Your task to perform on an android device: toggle data saver in the chrome app Image 0: 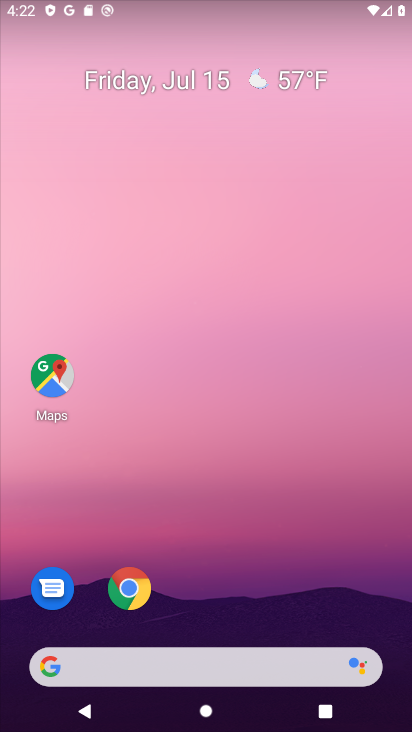
Step 0: drag from (247, 638) to (293, 128)
Your task to perform on an android device: toggle data saver in the chrome app Image 1: 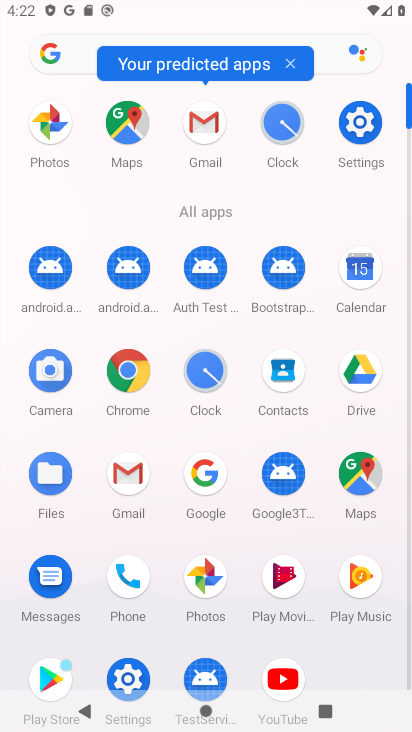
Step 1: click (125, 386)
Your task to perform on an android device: toggle data saver in the chrome app Image 2: 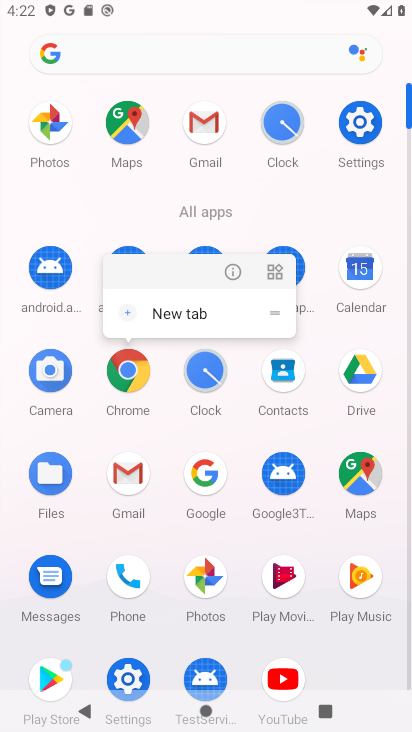
Step 2: click (134, 371)
Your task to perform on an android device: toggle data saver in the chrome app Image 3: 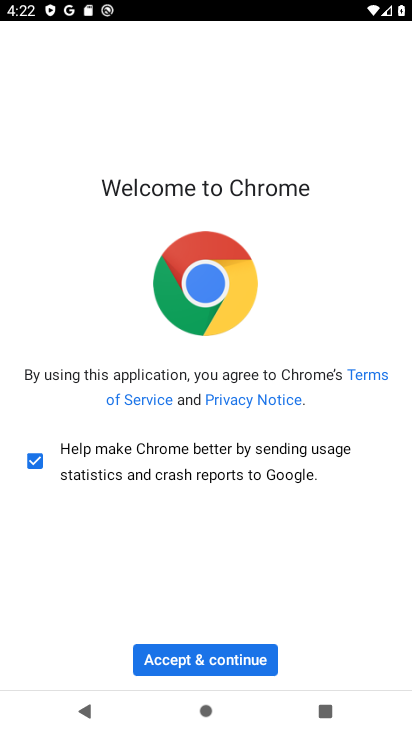
Step 3: click (204, 655)
Your task to perform on an android device: toggle data saver in the chrome app Image 4: 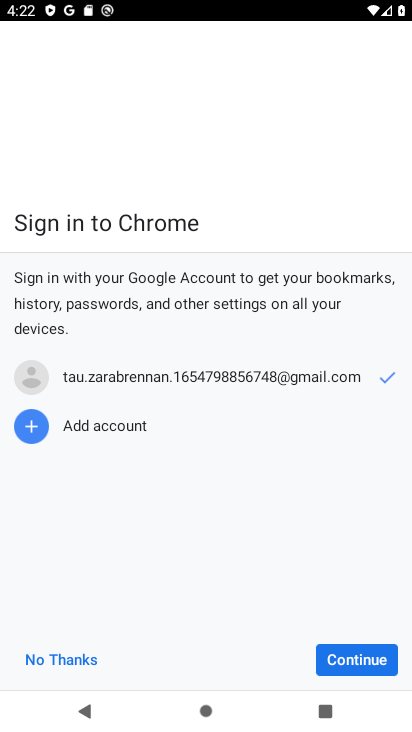
Step 4: click (341, 667)
Your task to perform on an android device: toggle data saver in the chrome app Image 5: 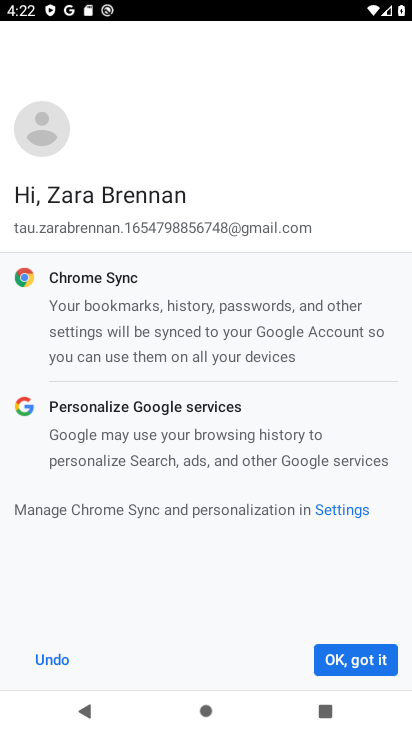
Step 5: click (359, 654)
Your task to perform on an android device: toggle data saver in the chrome app Image 6: 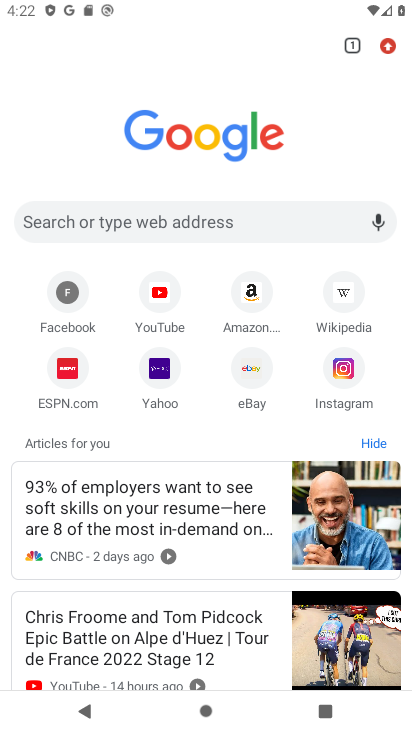
Step 6: drag from (387, 41) to (214, 440)
Your task to perform on an android device: toggle data saver in the chrome app Image 7: 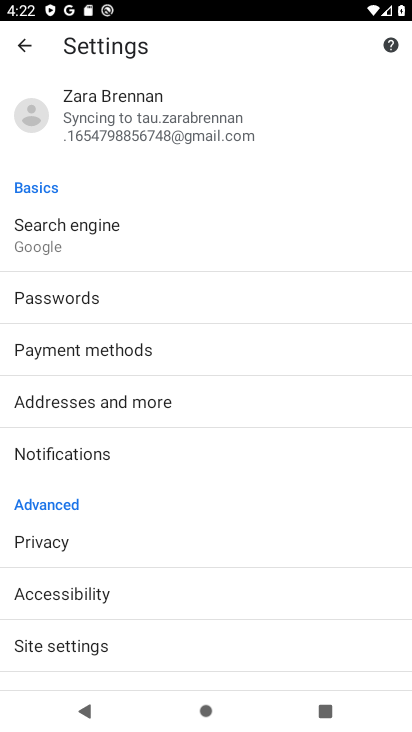
Step 7: drag from (180, 608) to (278, 270)
Your task to perform on an android device: toggle data saver in the chrome app Image 8: 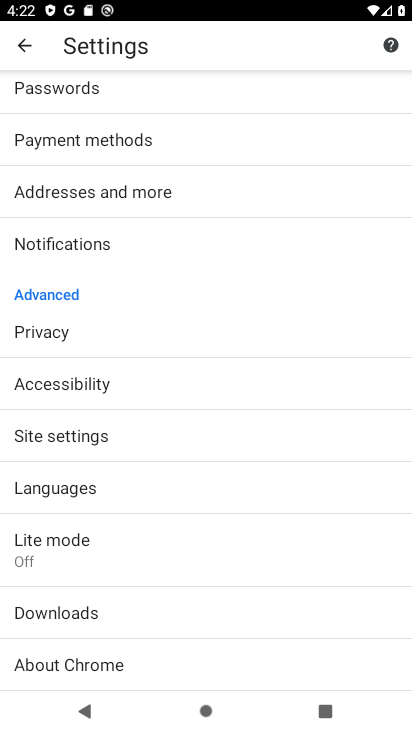
Step 8: click (66, 539)
Your task to perform on an android device: toggle data saver in the chrome app Image 9: 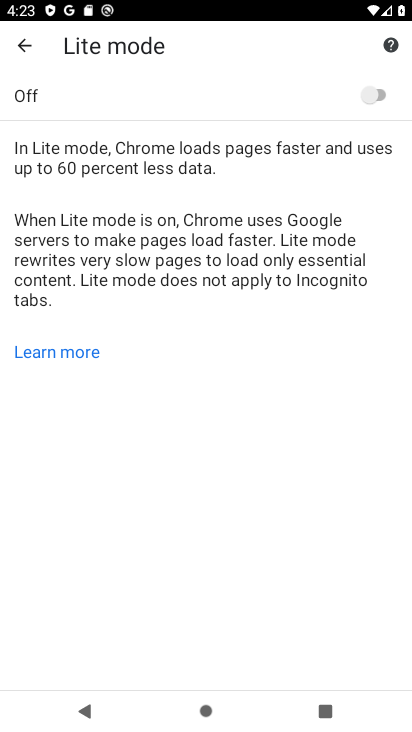
Step 9: click (250, 113)
Your task to perform on an android device: toggle data saver in the chrome app Image 10: 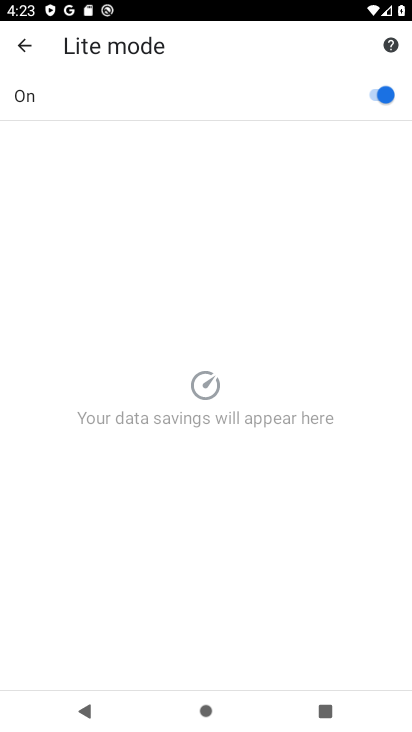
Step 10: task complete